Your task to perform on an android device: Go to Wikipedia Image 0: 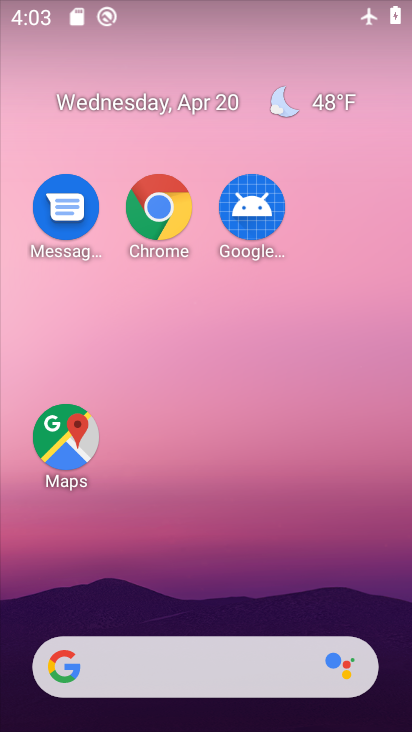
Step 0: drag from (231, 570) to (275, 33)
Your task to perform on an android device: Go to Wikipedia Image 1: 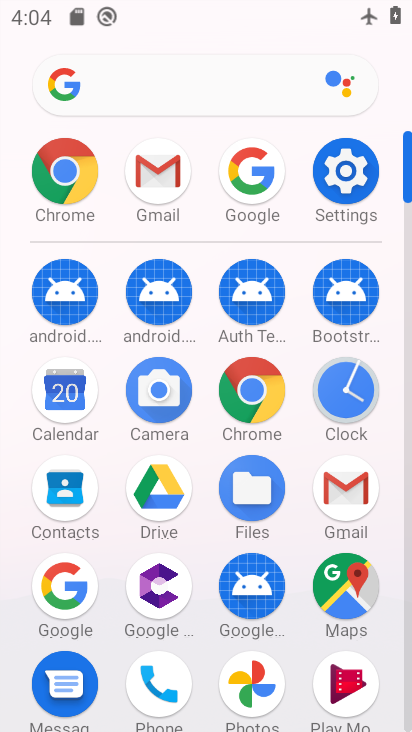
Step 1: click (261, 394)
Your task to perform on an android device: Go to Wikipedia Image 2: 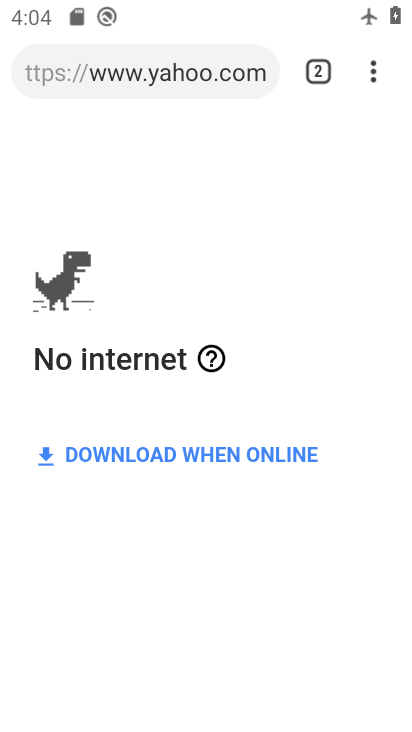
Step 2: task complete